Your task to perform on an android device: check data usage Image 0: 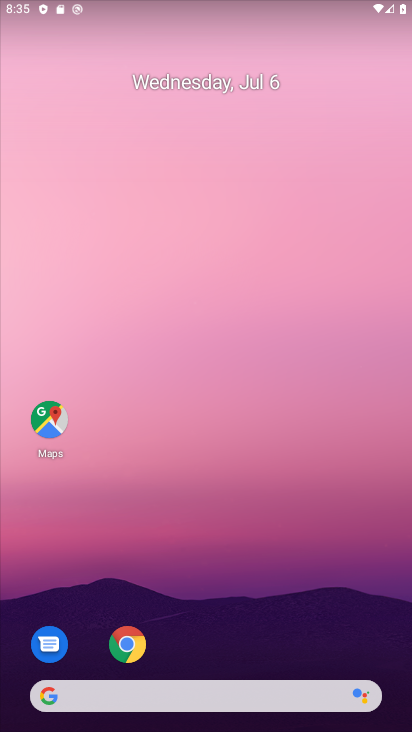
Step 0: drag from (229, 665) to (198, 1)
Your task to perform on an android device: check data usage Image 1: 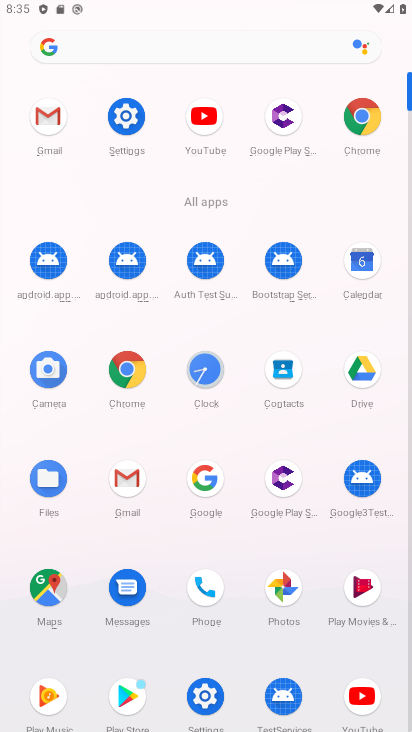
Step 1: click (124, 103)
Your task to perform on an android device: check data usage Image 2: 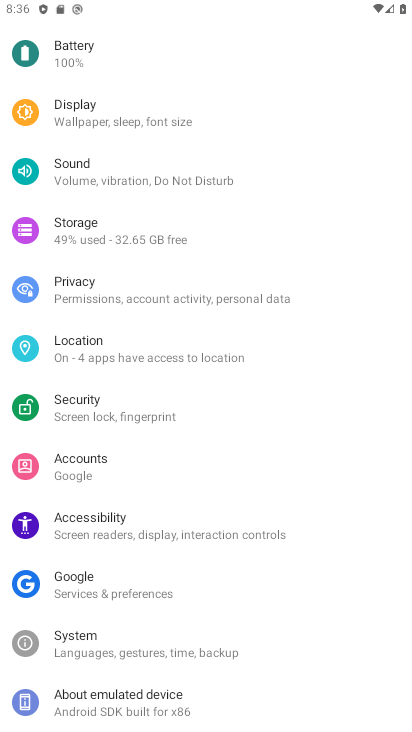
Step 2: drag from (124, 103) to (57, 498)
Your task to perform on an android device: check data usage Image 3: 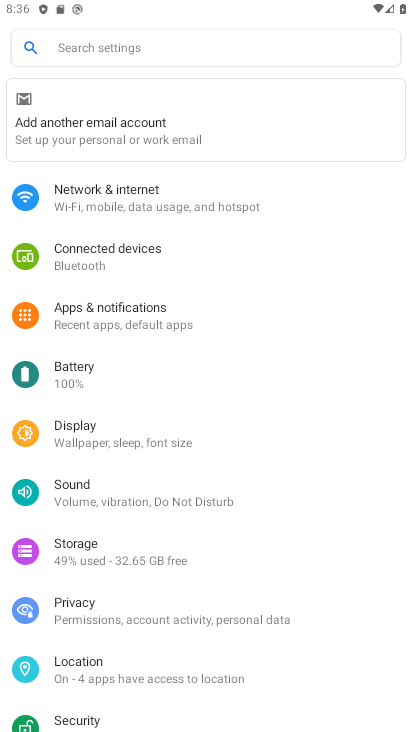
Step 3: click (129, 218)
Your task to perform on an android device: check data usage Image 4: 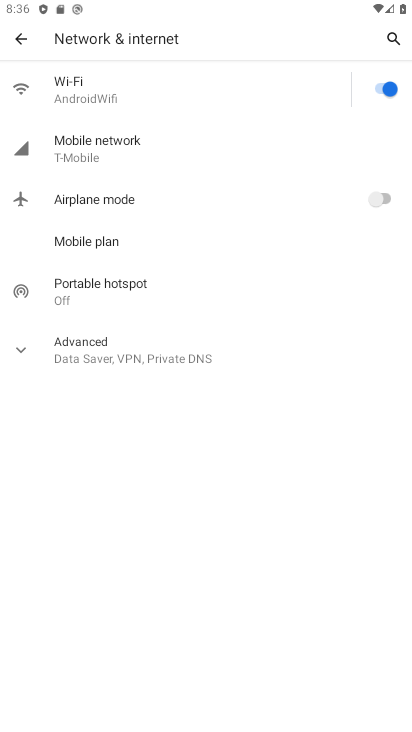
Step 4: click (149, 141)
Your task to perform on an android device: check data usage Image 5: 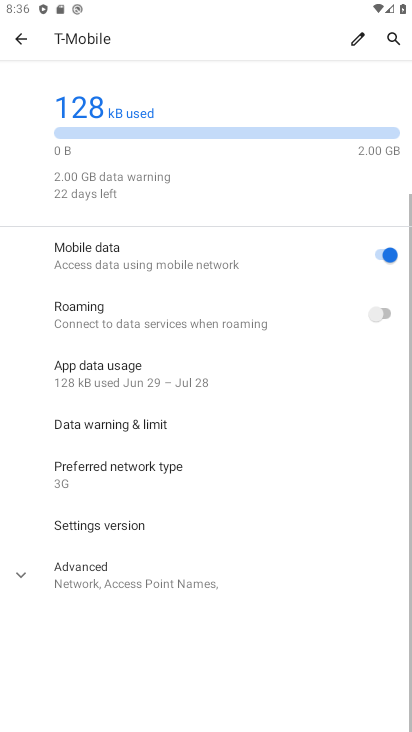
Step 5: task complete